Your task to perform on an android device: What is the news today? Image 0: 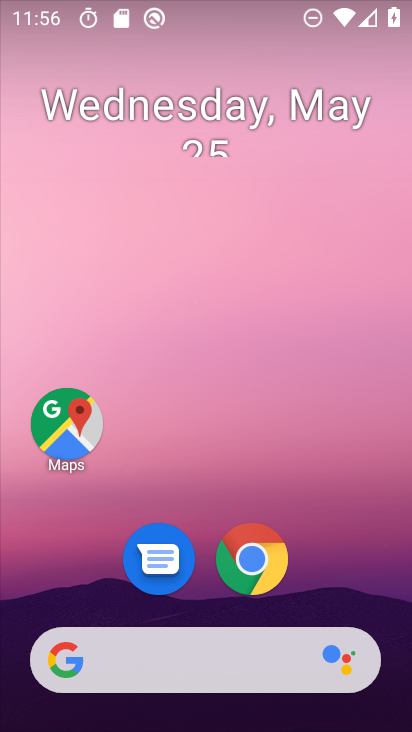
Step 0: drag from (347, 569) to (361, 107)
Your task to perform on an android device: What is the news today? Image 1: 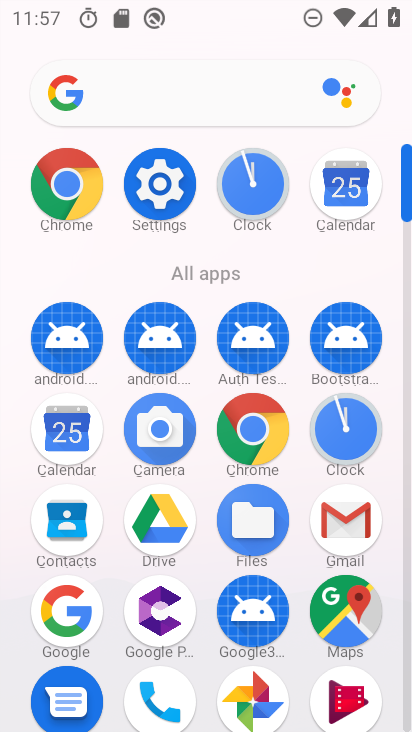
Step 1: click (240, 430)
Your task to perform on an android device: What is the news today? Image 2: 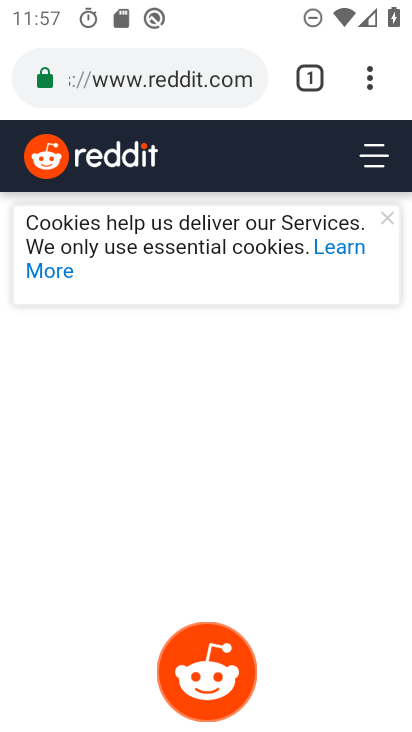
Step 2: click (233, 89)
Your task to perform on an android device: What is the news today? Image 3: 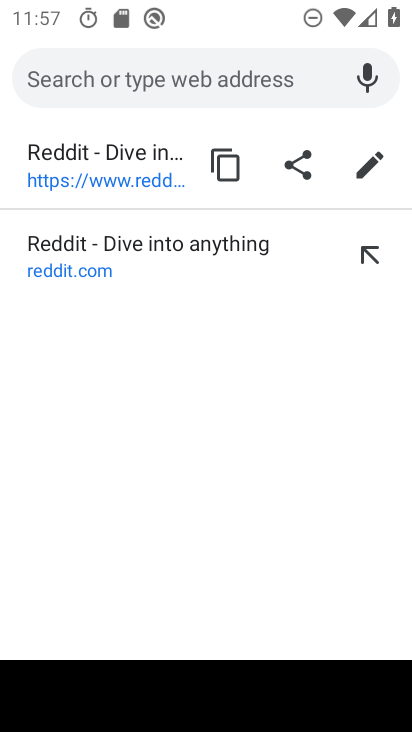
Step 3: type "what is the news today"
Your task to perform on an android device: What is the news today? Image 4: 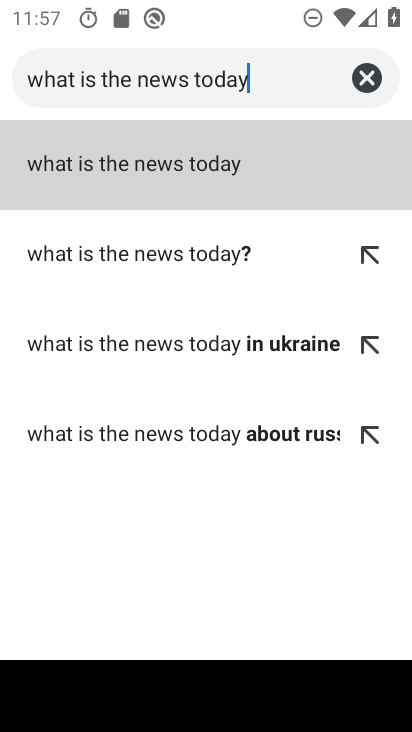
Step 4: click (100, 199)
Your task to perform on an android device: What is the news today? Image 5: 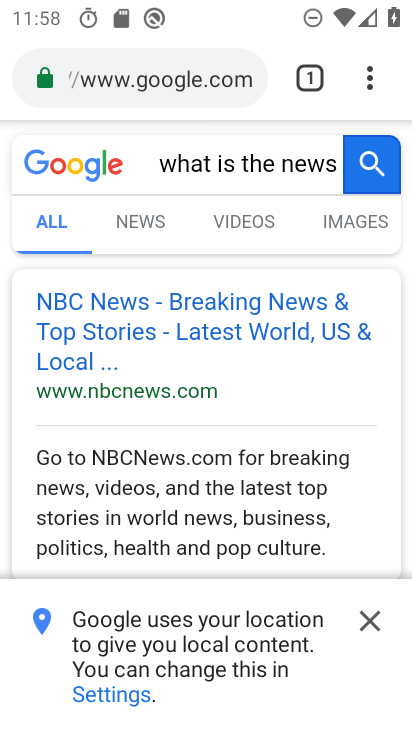
Step 5: task complete